Your task to perform on an android device: Open ESPN.com Image 0: 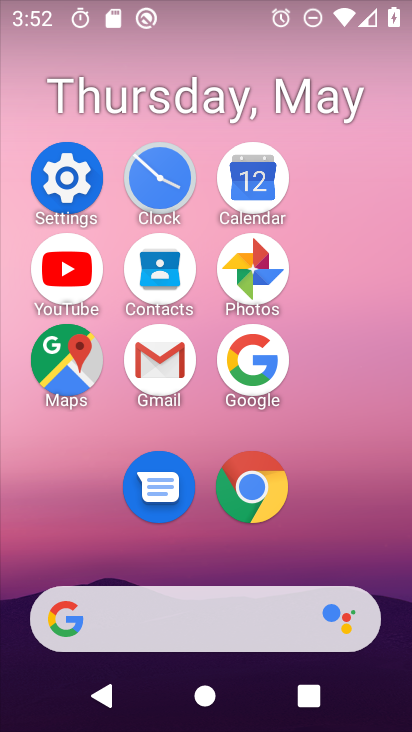
Step 0: click (271, 481)
Your task to perform on an android device: Open ESPN.com Image 1: 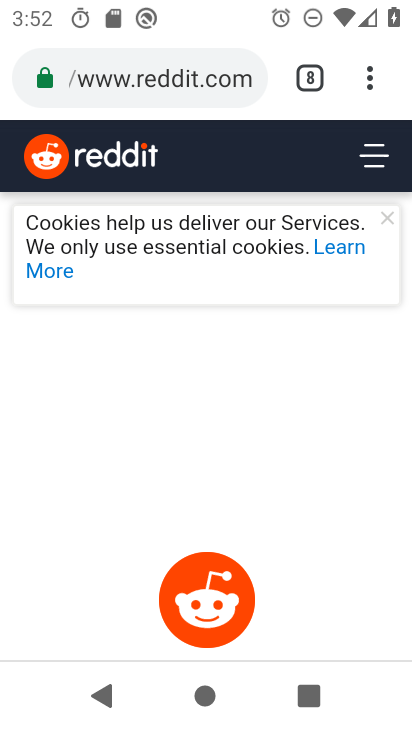
Step 1: click (312, 82)
Your task to perform on an android device: Open ESPN.com Image 2: 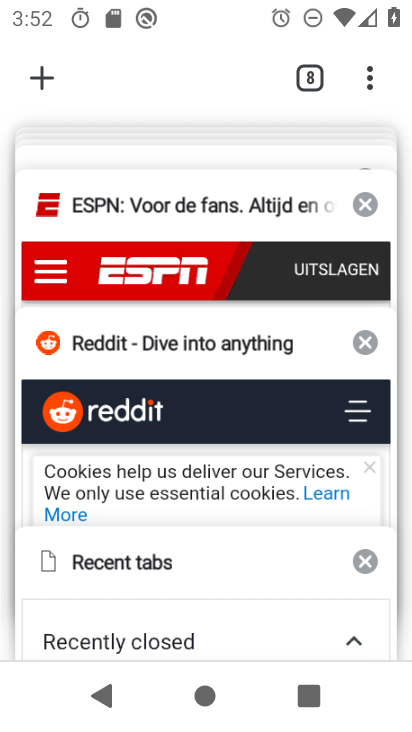
Step 2: click (126, 241)
Your task to perform on an android device: Open ESPN.com Image 3: 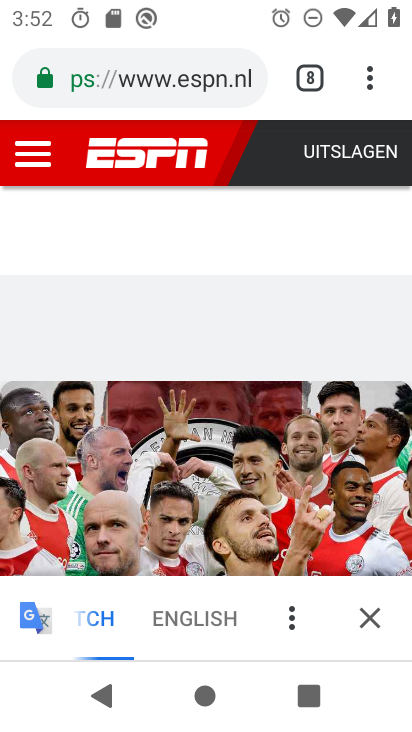
Step 3: task complete